Your task to perform on an android device: Open Yahoo.com Image 0: 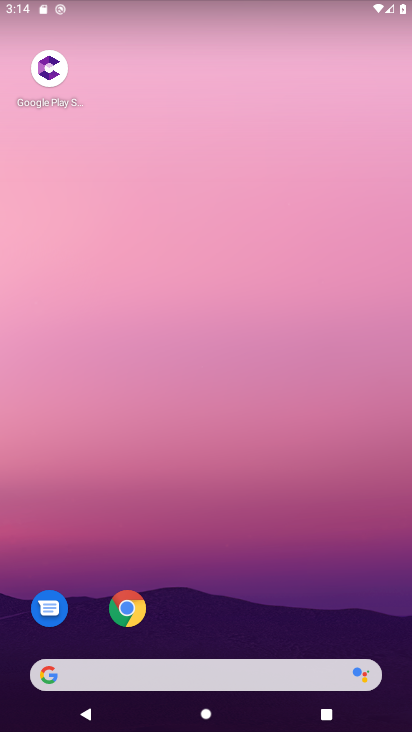
Step 0: drag from (203, 440) to (211, 229)
Your task to perform on an android device: Open Yahoo.com Image 1: 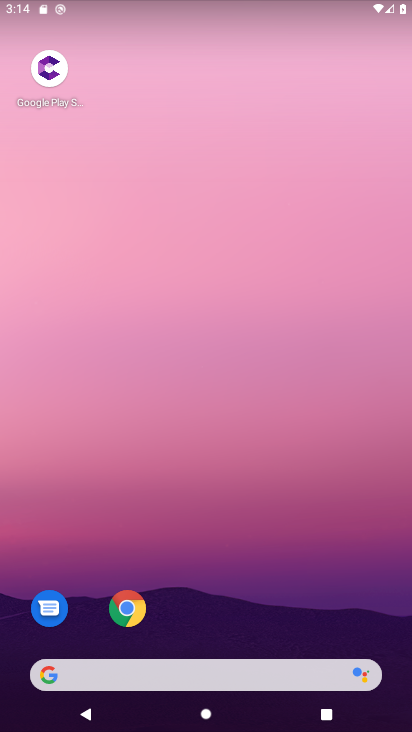
Step 1: click (130, 615)
Your task to perform on an android device: Open Yahoo.com Image 2: 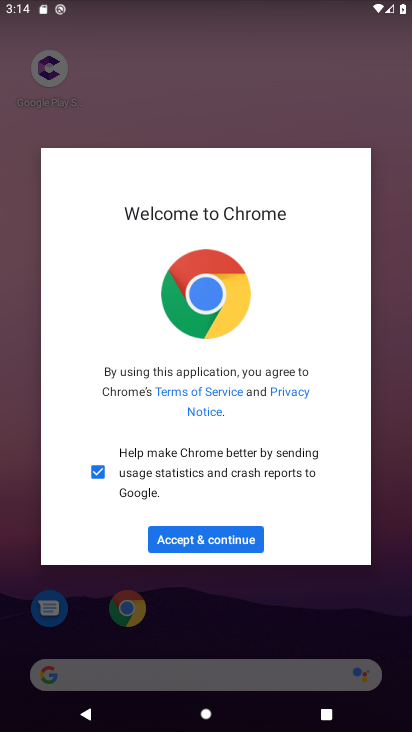
Step 2: click (215, 540)
Your task to perform on an android device: Open Yahoo.com Image 3: 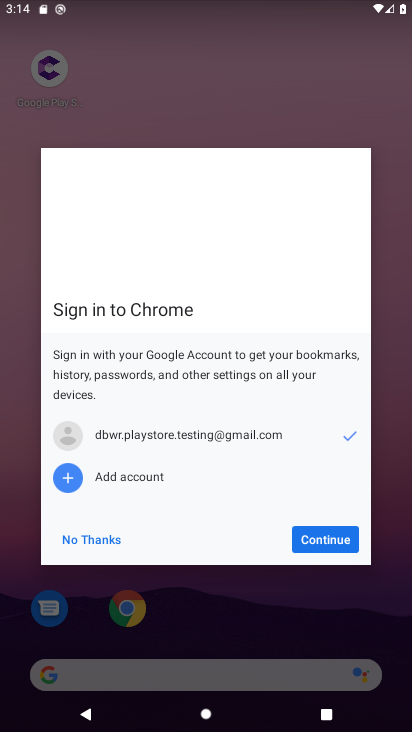
Step 3: click (322, 547)
Your task to perform on an android device: Open Yahoo.com Image 4: 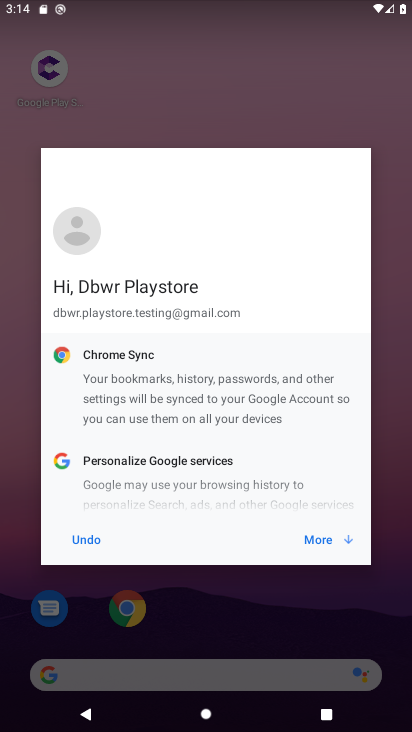
Step 4: click (313, 538)
Your task to perform on an android device: Open Yahoo.com Image 5: 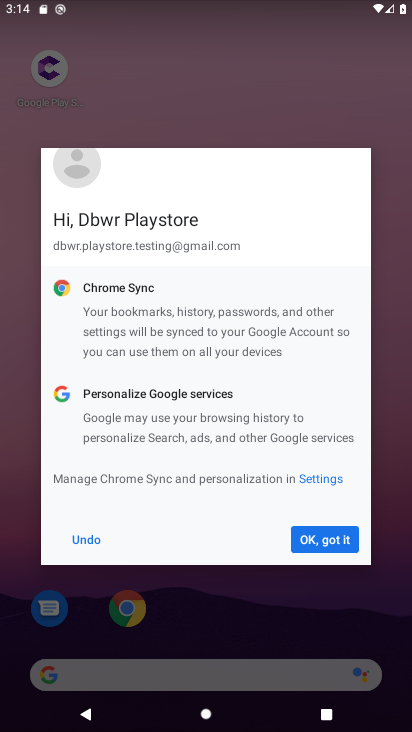
Step 5: click (314, 543)
Your task to perform on an android device: Open Yahoo.com Image 6: 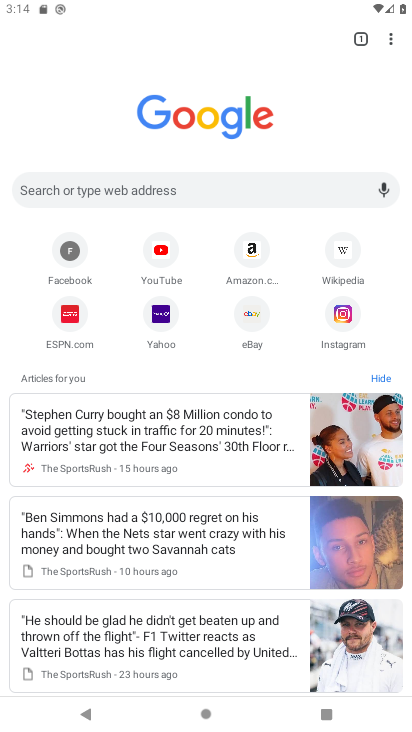
Step 6: click (163, 310)
Your task to perform on an android device: Open Yahoo.com Image 7: 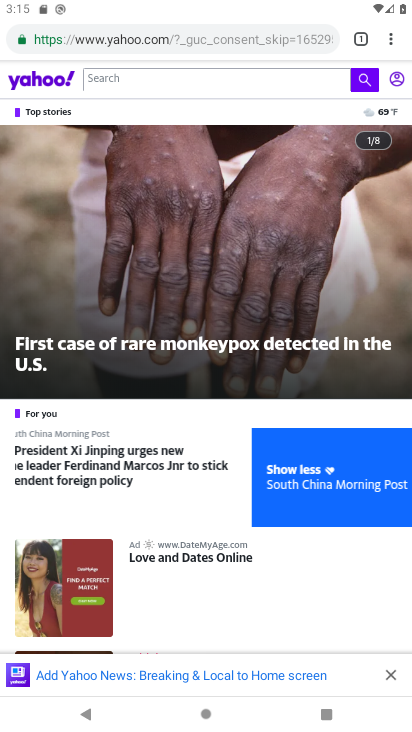
Step 7: task complete